Your task to perform on an android device: add a contact in the contacts app Image 0: 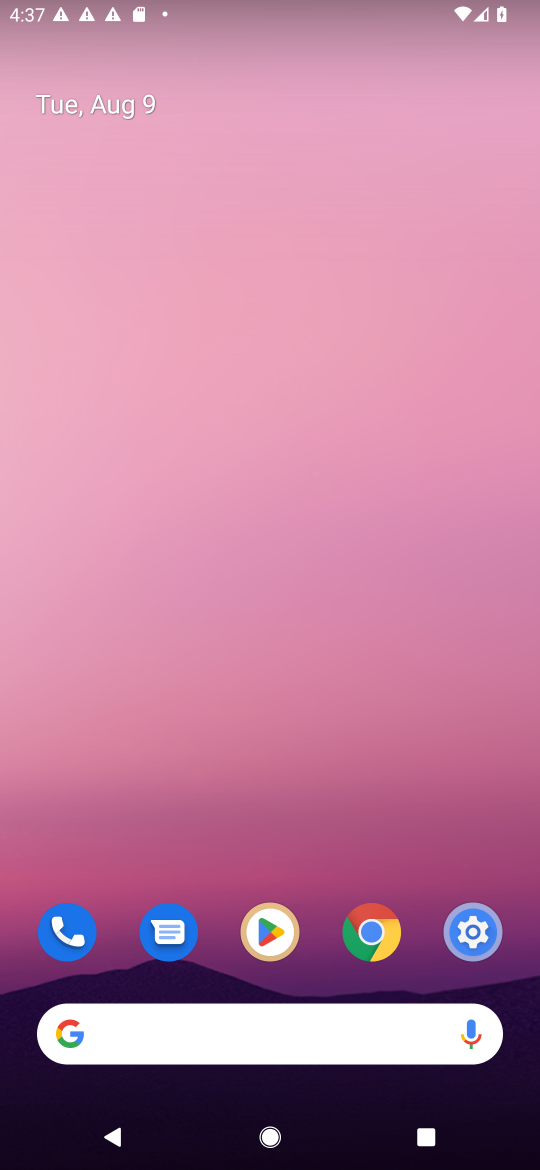
Step 0: drag from (218, 831) to (307, 20)
Your task to perform on an android device: add a contact in the contacts app Image 1: 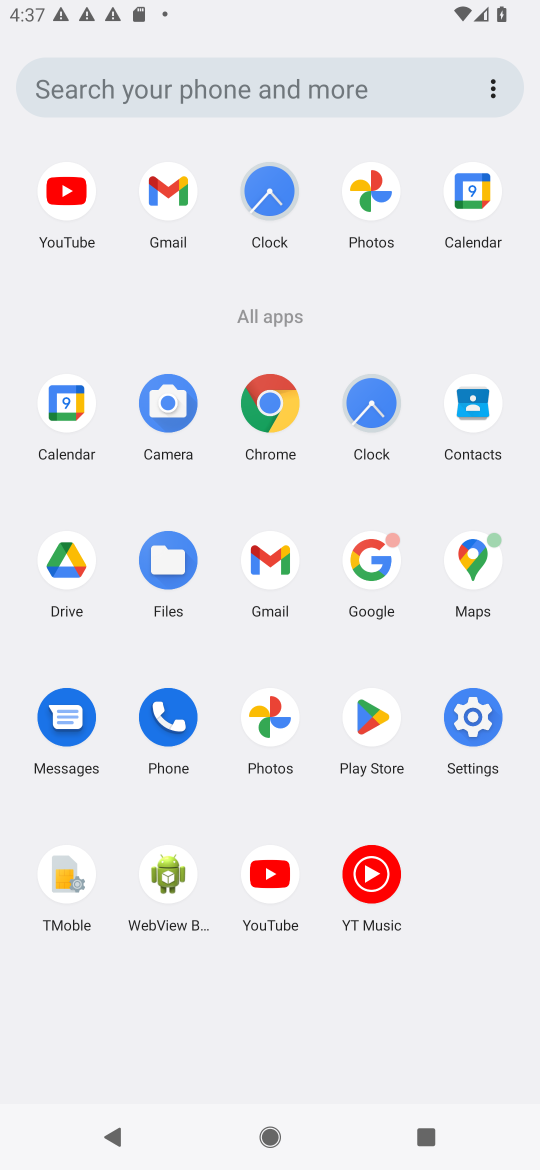
Step 1: click (489, 429)
Your task to perform on an android device: add a contact in the contacts app Image 2: 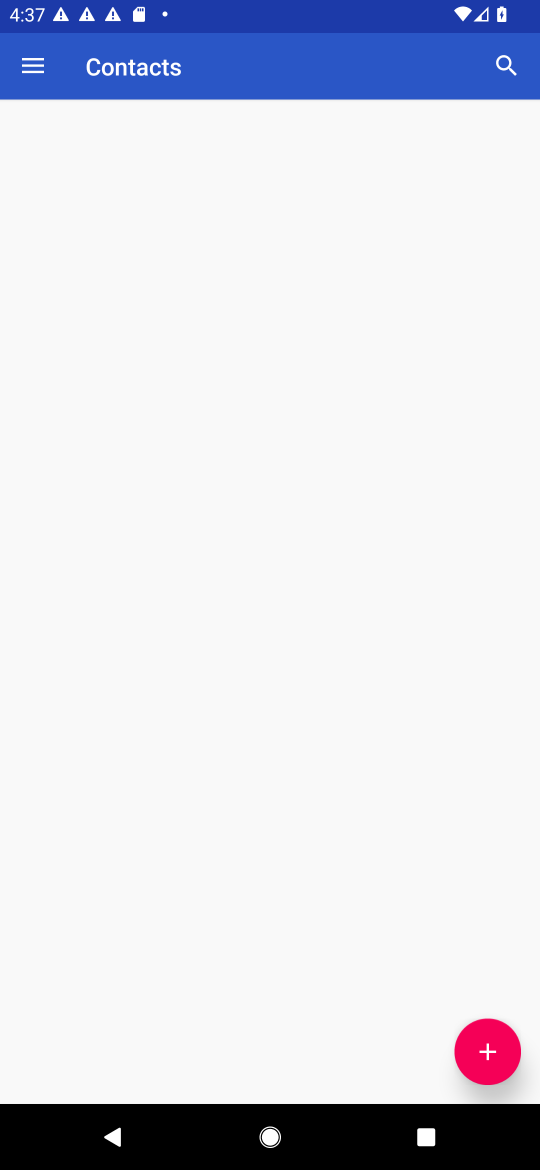
Step 2: click (487, 1052)
Your task to perform on an android device: add a contact in the contacts app Image 3: 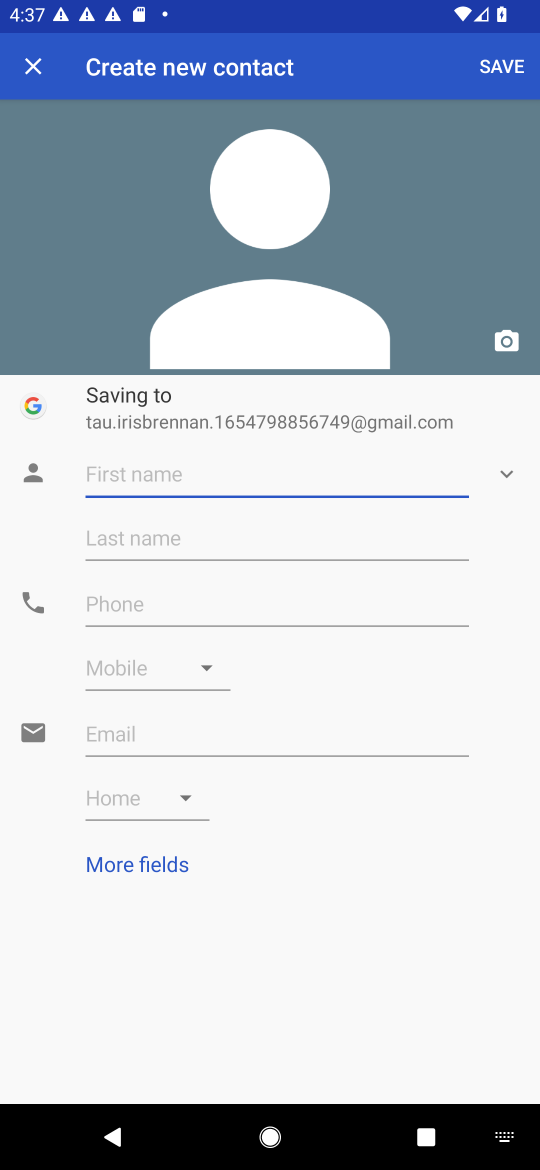
Step 3: type "parmish"
Your task to perform on an android device: add a contact in the contacts app Image 4: 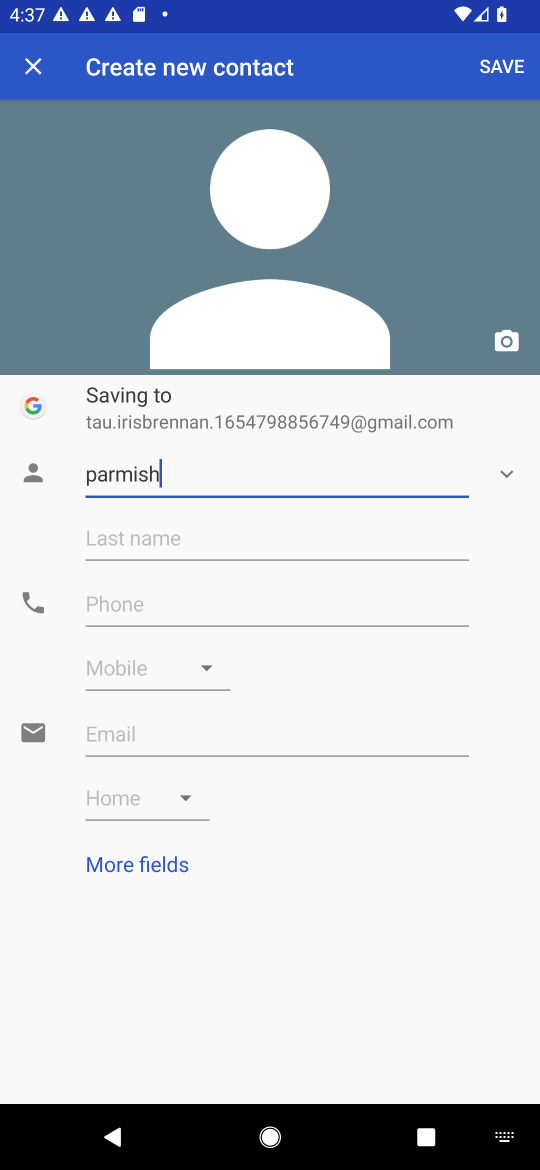
Step 4: click (512, 59)
Your task to perform on an android device: add a contact in the contacts app Image 5: 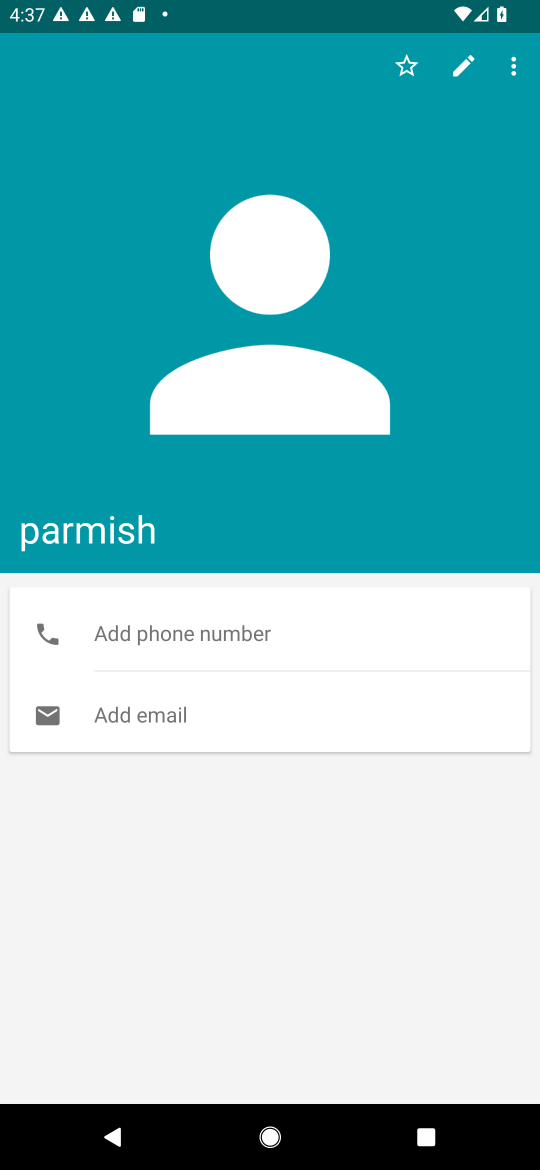
Step 5: task complete